Your task to perform on an android device: change notifications settings Image 0: 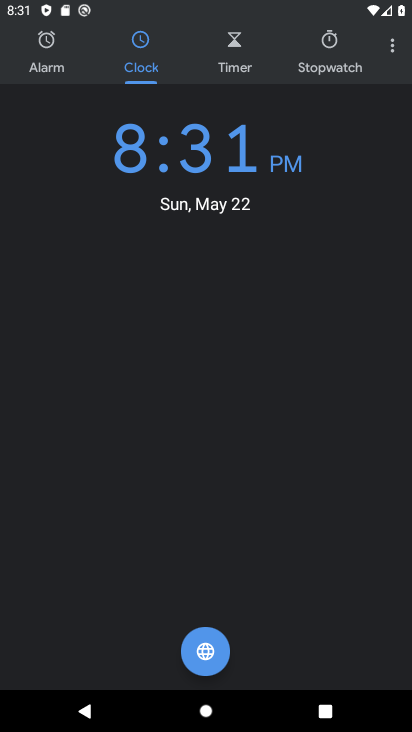
Step 0: press home button
Your task to perform on an android device: change notifications settings Image 1: 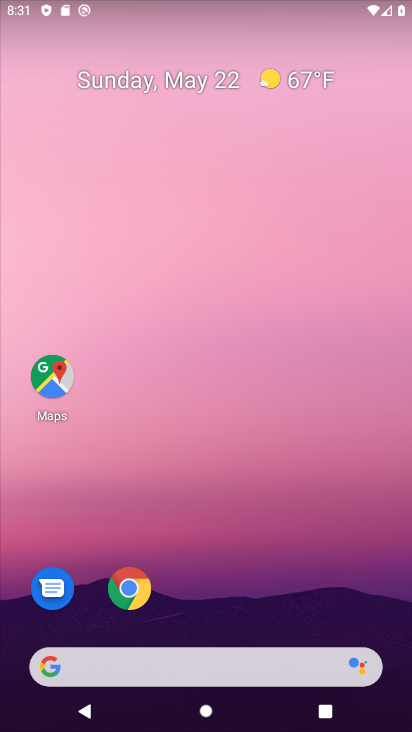
Step 1: drag from (216, 597) to (211, 184)
Your task to perform on an android device: change notifications settings Image 2: 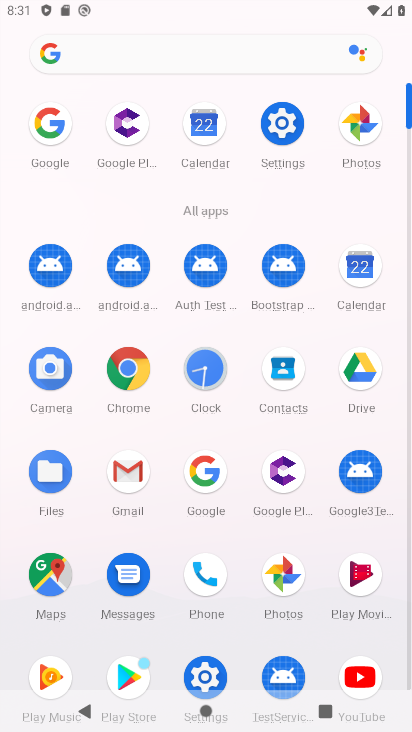
Step 2: click (261, 124)
Your task to perform on an android device: change notifications settings Image 3: 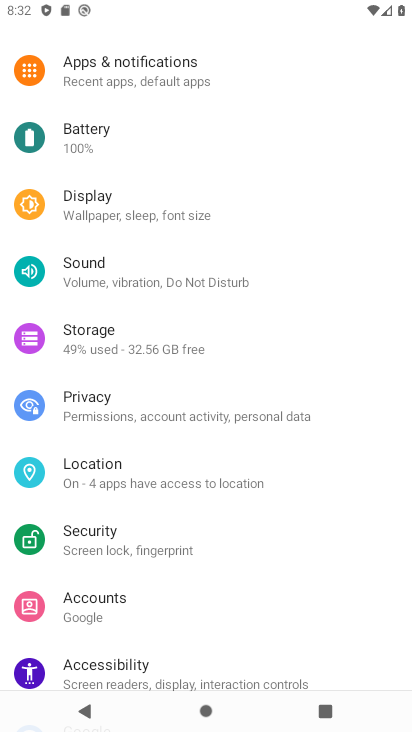
Step 3: click (189, 93)
Your task to perform on an android device: change notifications settings Image 4: 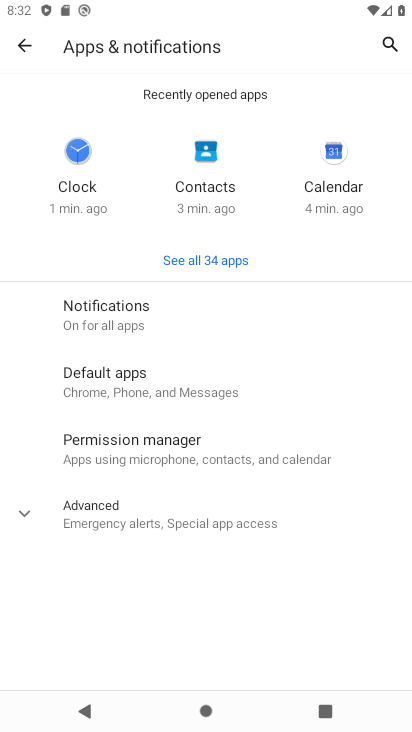
Step 4: click (140, 322)
Your task to perform on an android device: change notifications settings Image 5: 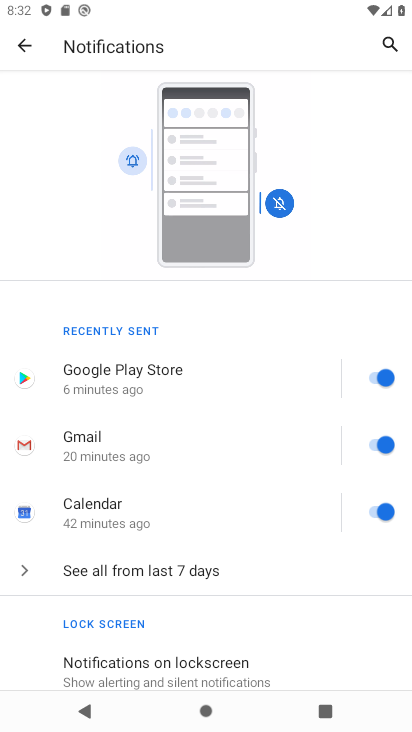
Step 5: drag from (174, 609) to (227, 175)
Your task to perform on an android device: change notifications settings Image 6: 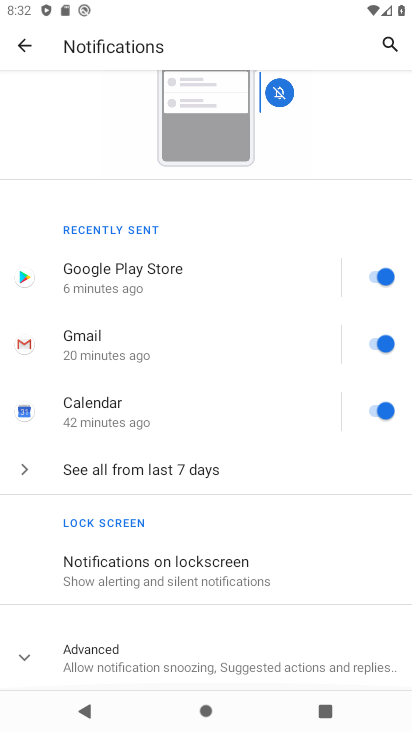
Step 6: click (215, 566)
Your task to perform on an android device: change notifications settings Image 7: 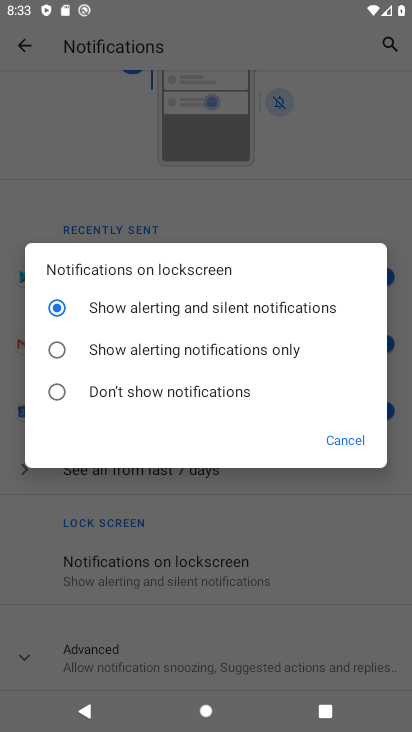
Step 7: click (90, 391)
Your task to perform on an android device: change notifications settings Image 8: 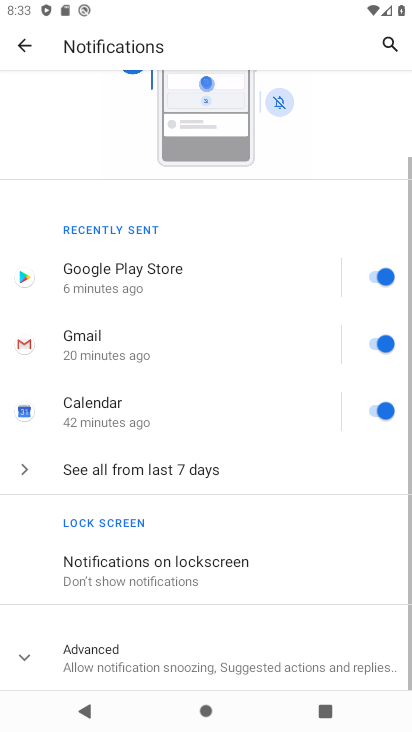
Step 8: task complete